Your task to perform on an android device: turn on the 12-hour format for clock Image 0: 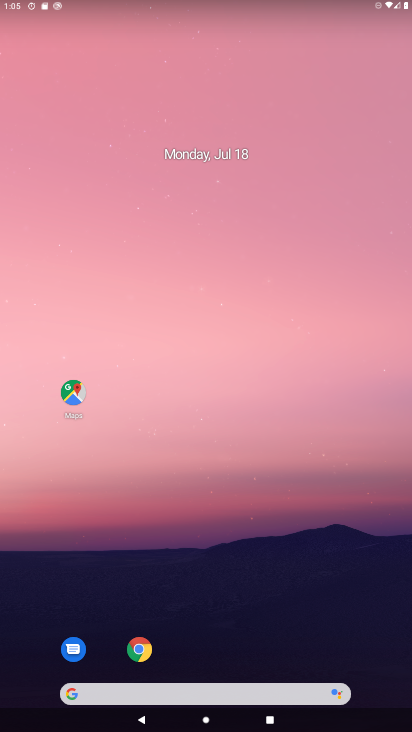
Step 0: drag from (217, 371) to (321, 118)
Your task to perform on an android device: turn on the 12-hour format for clock Image 1: 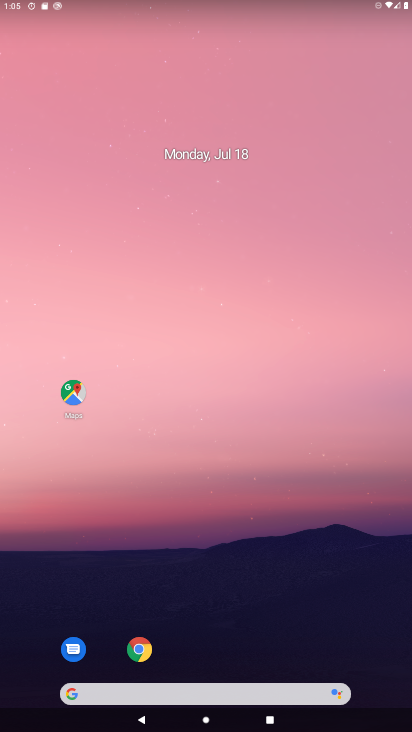
Step 1: drag from (139, 354) to (234, 111)
Your task to perform on an android device: turn on the 12-hour format for clock Image 2: 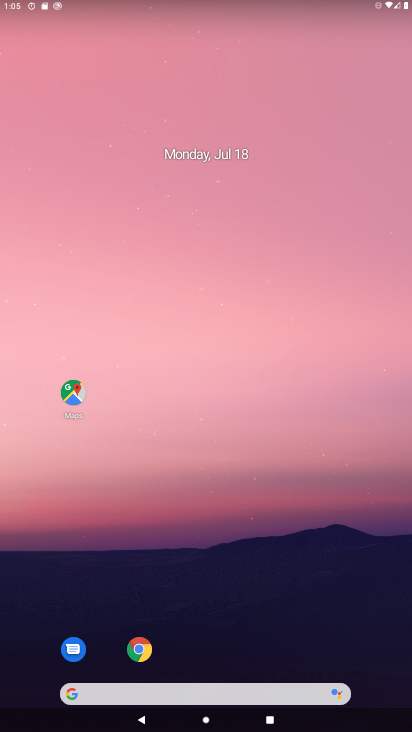
Step 2: drag from (39, 690) to (115, 360)
Your task to perform on an android device: turn on the 12-hour format for clock Image 3: 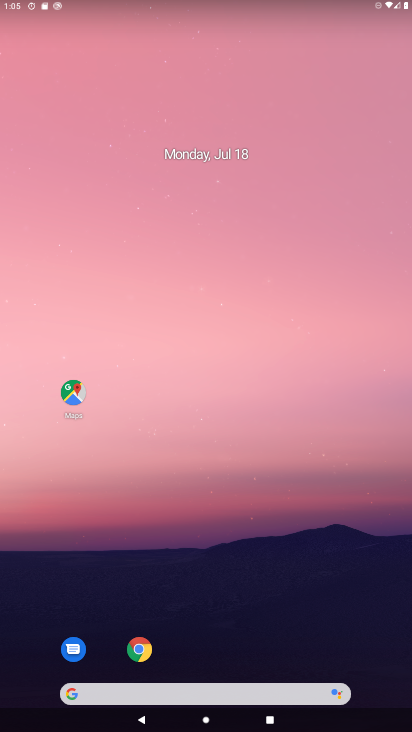
Step 3: drag from (12, 687) to (241, 128)
Your task to perform on an android device: turn on the 12-hour format for clock Image 4: 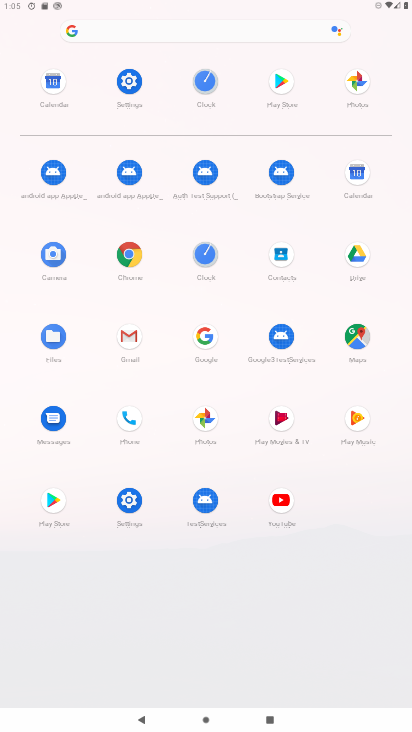
Step 4: click (201, 261)
Your task to perform on an android device: turn on the 12-hour format for clock Image 5: 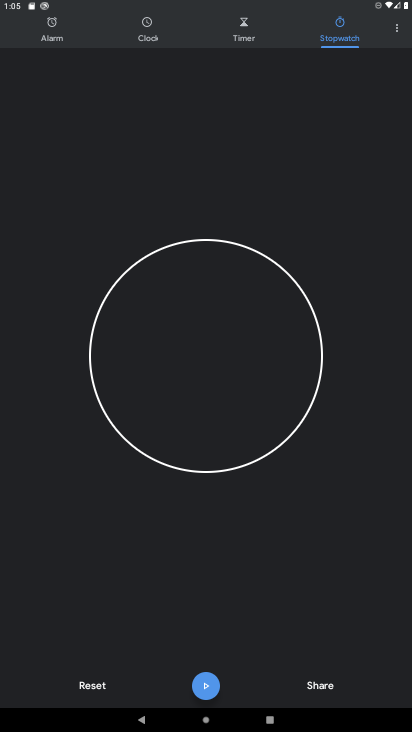
Step 5: click (144, 32)
Your task to perform on an android device: turn on the 12-hour format for clock Image 6: 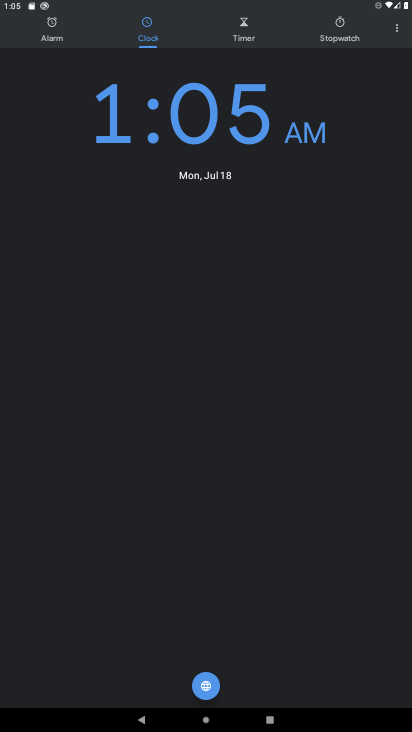
Step 6: click (393, 29)
Your task to perform on an android device: turn on the 12-hour format for clock Image 7: 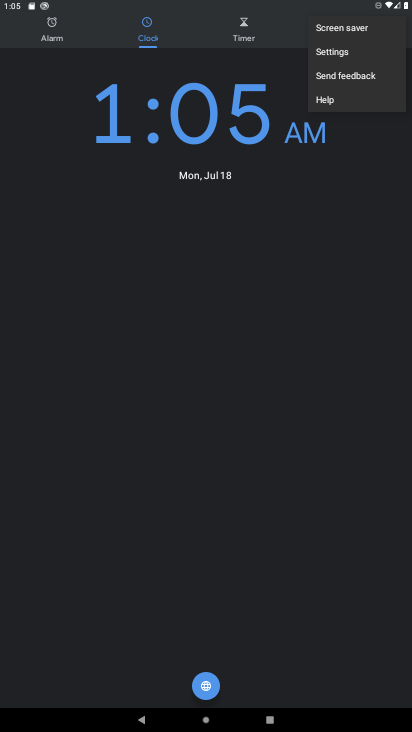
Step 7: click (338, 56)
Your task to perform on an android device: turn on the 12-hour format for clock Image 8: 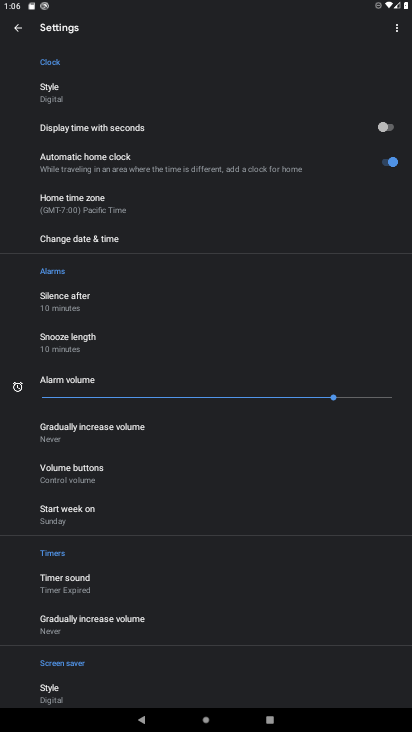
Step 8: click (114, 240)
Your task to perform on an android device: turn on the 12-hour format for clock Image 9: 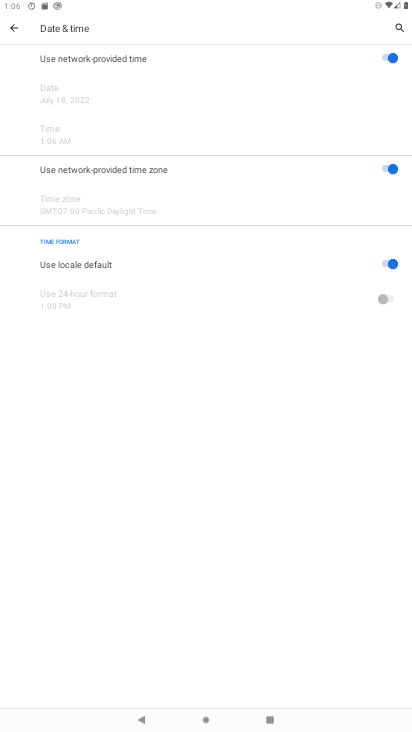
Step 9: click (387, 266)
Your task to perform on an android device: turn on the 12-hour format for clock Image 10: 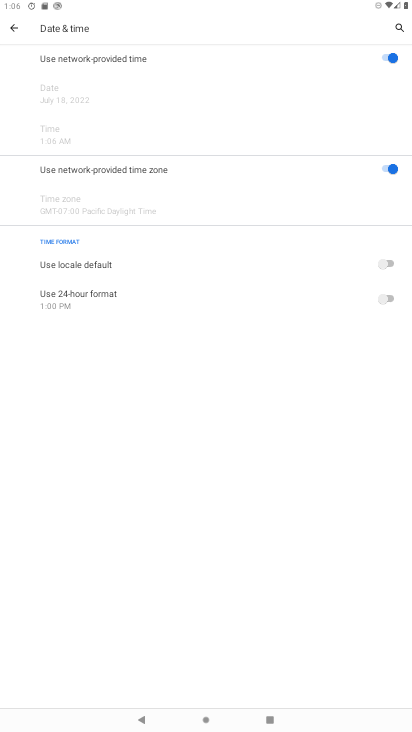
Step 10: click (383, 304)
Your task to perform on an android device: turn on the 12-hour format for clock Image 11: 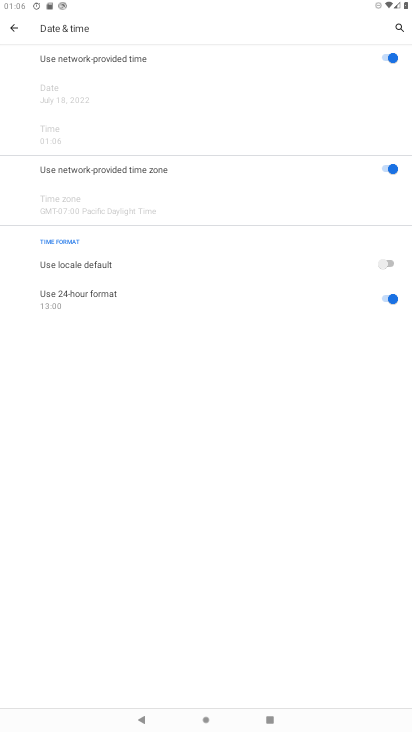
Step 11: task complete